Your task to perform on an android device: turn on data saver in the chrome app Image 0: 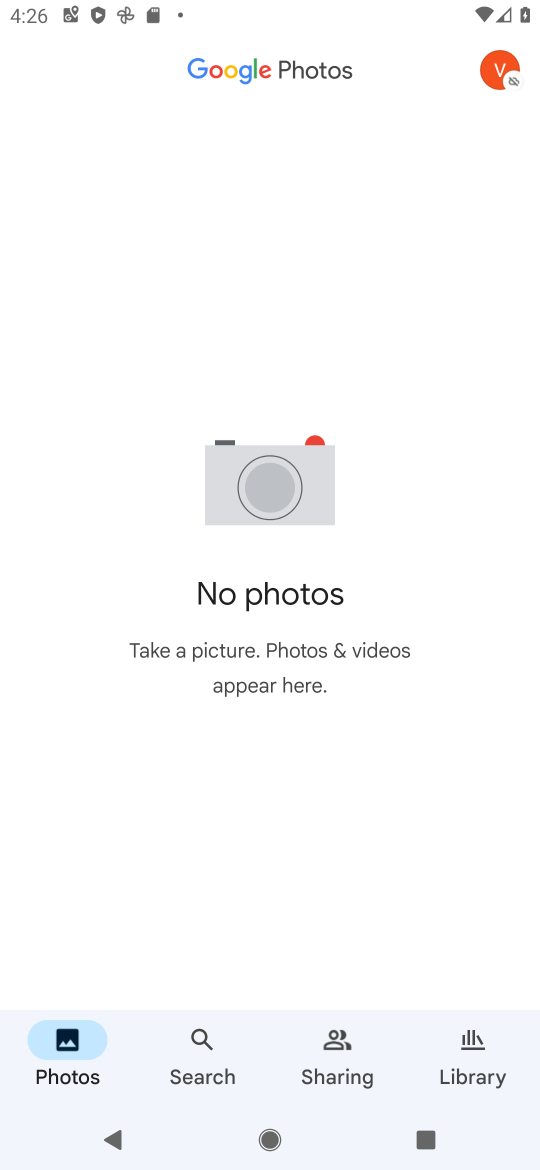
Step 0: press home button
Your task to perform on an android device: turn on data saver in the chrome app Image 1: 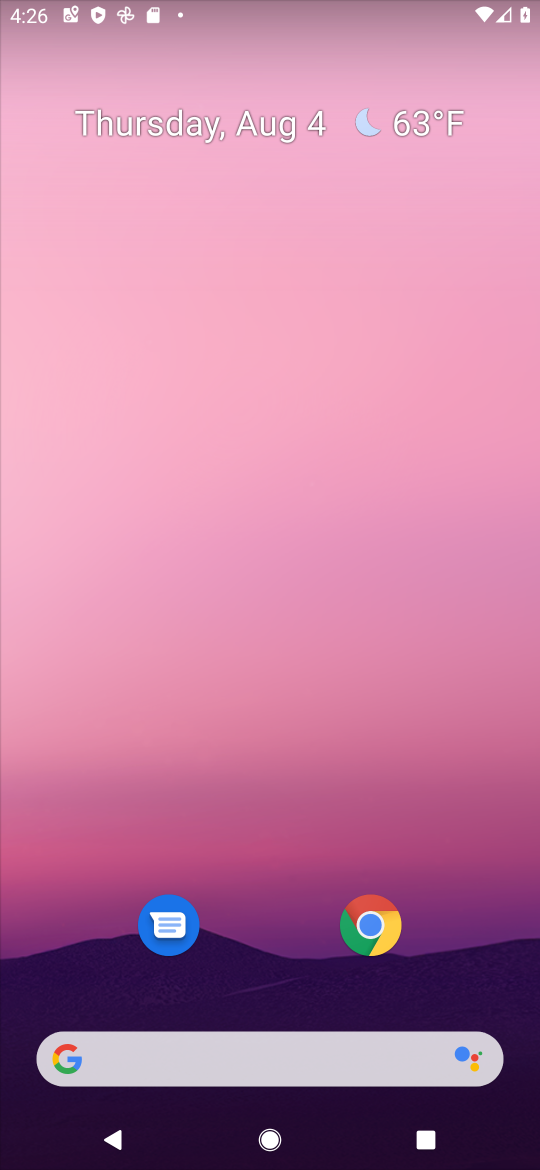
Step 1: click (335, 929)
Your task to perform on an android device: turn on data saver in the chrome app Image 2: 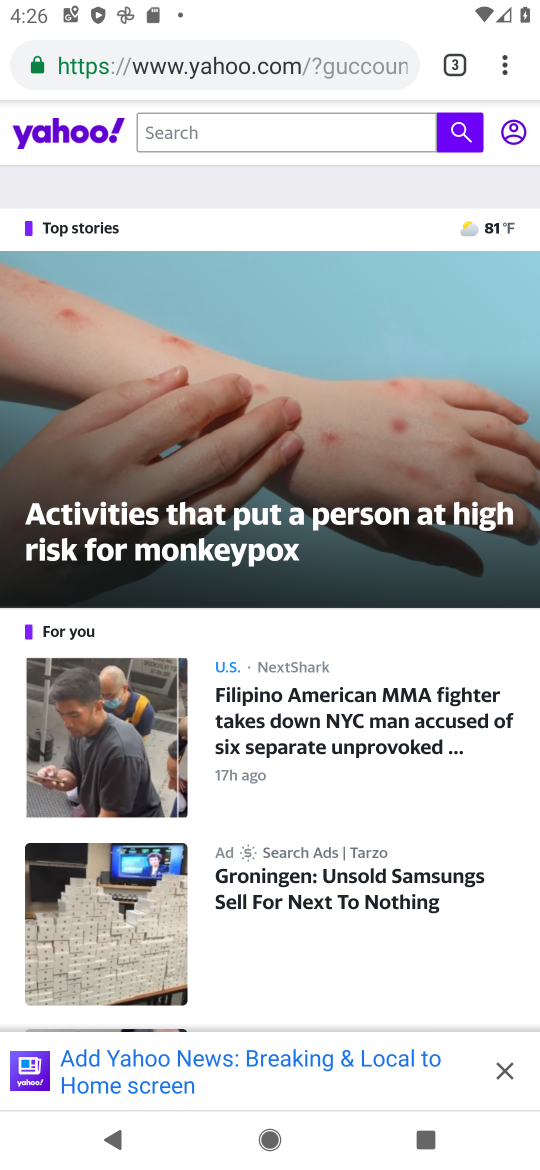
Step 2: click (492, 54)
Your task to perform on an android device: turn on data saver in the chrome app Image 3: 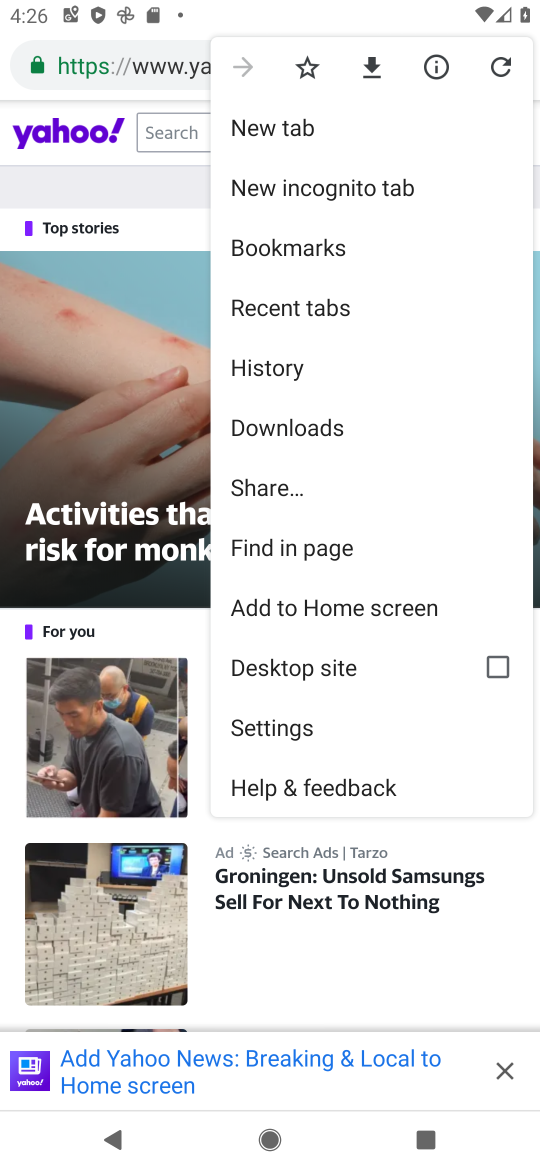
Step 3: click (270, 736)
Your task to perform on an android device: turn on data saver in the chrome app Image 4: 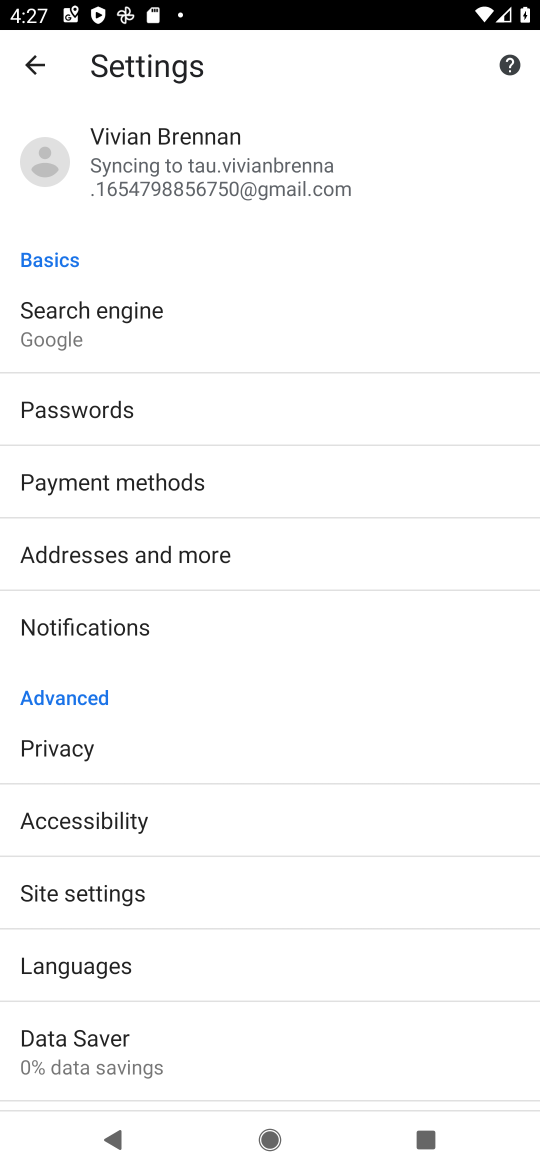
Step 4: click (177, 901)
Your task to perform on an android device: turn on data saver in the chrome app Image 5: 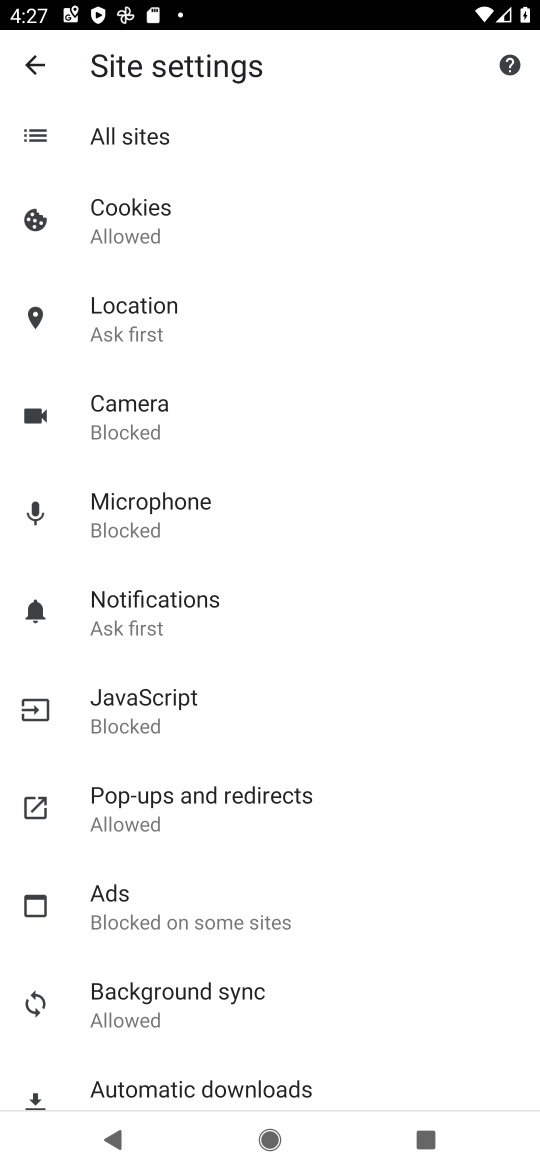
Step 5: drag from (405, 717) to (262, 27)
Your task to perform on an android device: turn on data saver in the chrome app Image 6: 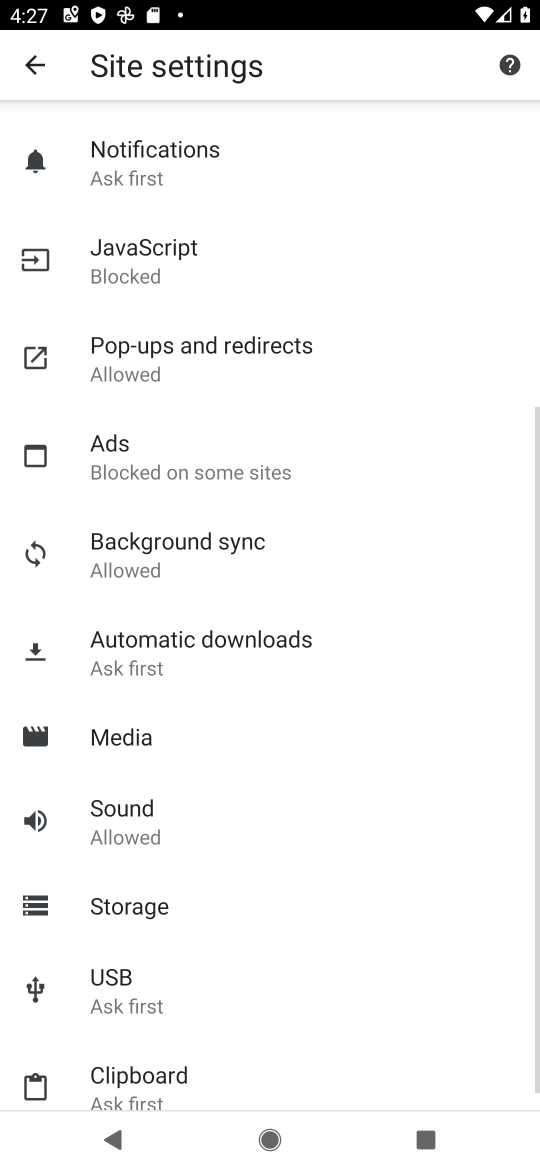
Step 6: click (25, 56)
Your task to perform on an android device: turn on data saver in the chrome app Image 7: 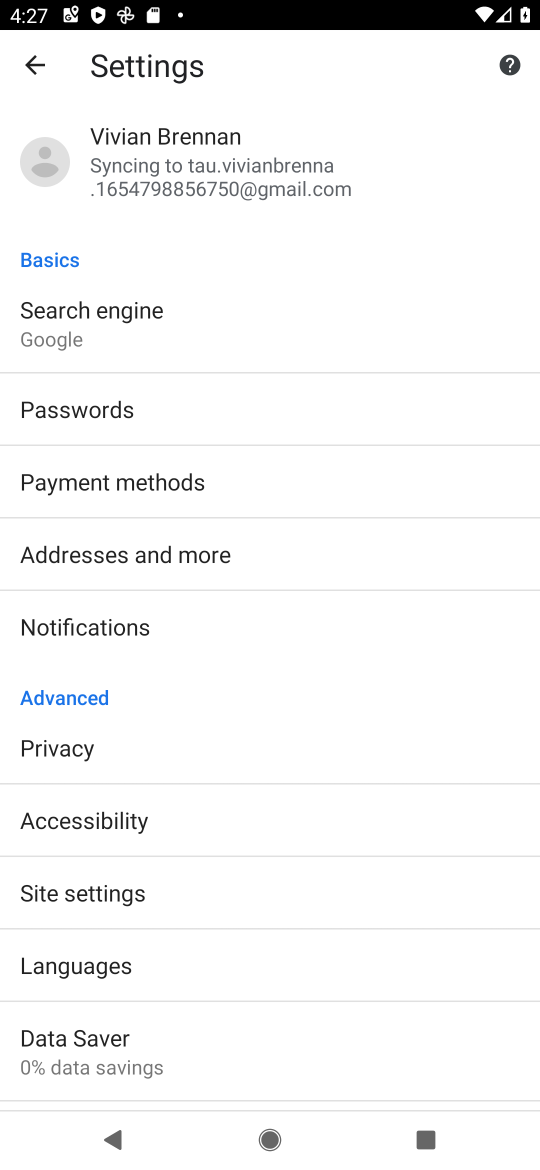
Step 7: drag from (315, 616) to (309, 259)
Your task to perform on an android device: turn on data saver in the chrome app Image 8: 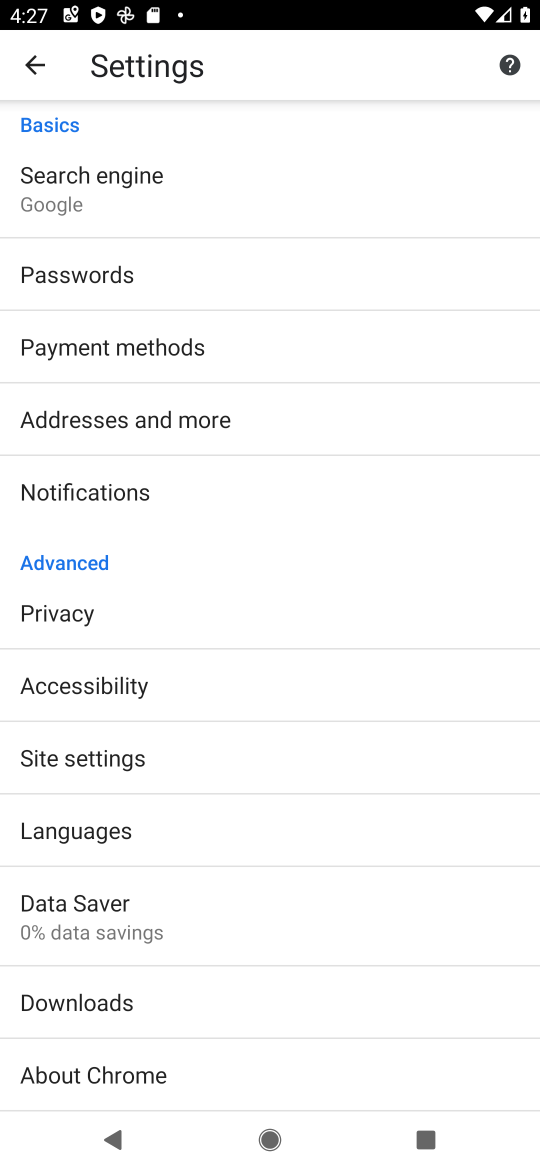
Step 8: click (132, 900)
Your task to perform on an android device: turn on data saver in the chrome app Image 9: 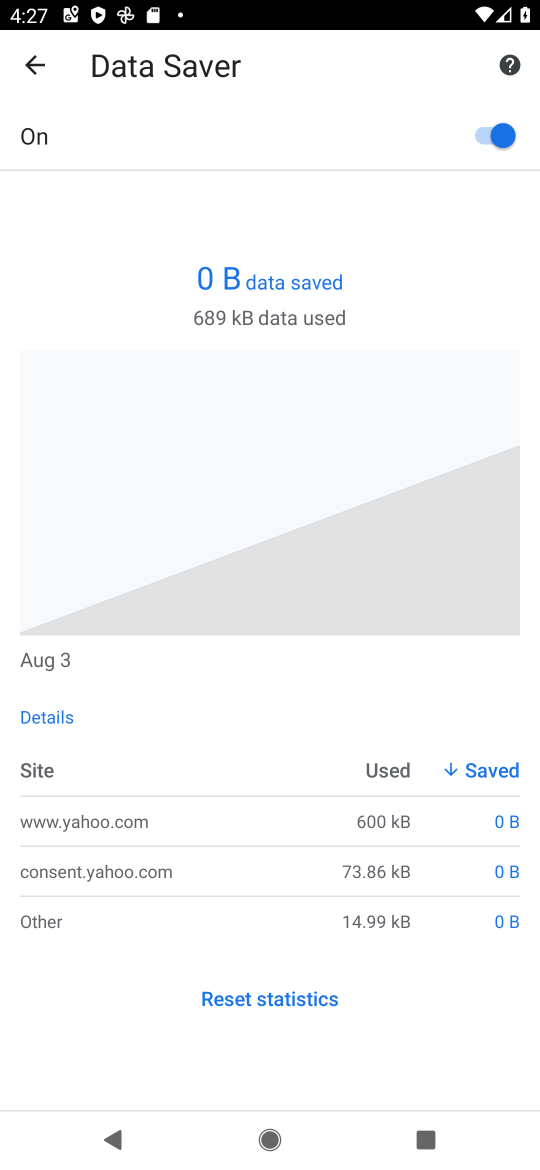
Step 9: task complete